Your task to perform on an android device: Search for vegetarian restaurants on Maps Image 0: 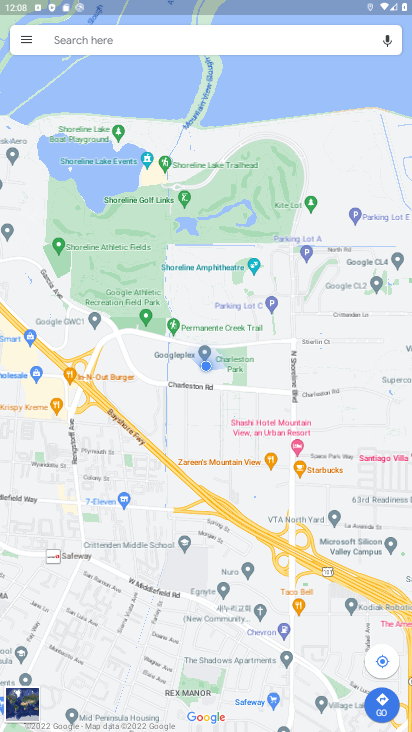
Step 0: click (295, 45)
Your task to perform on an android device: Search for vegetarian restaurants on Maps Image 1: 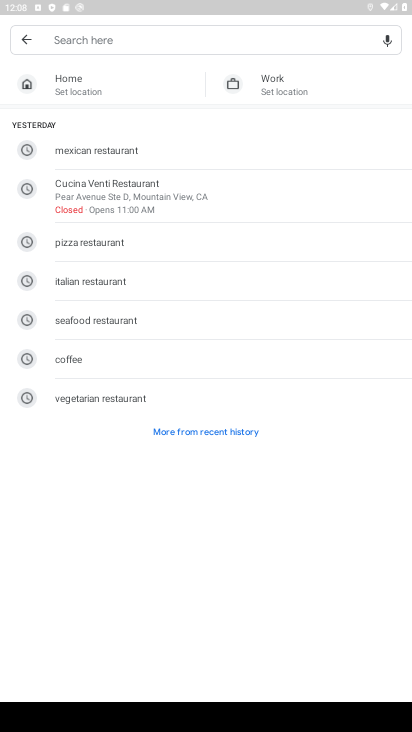
Step 1: click (101, 403)
Your task to perform on an android device: Search for vegetarian restaurants on Maps Image 2: 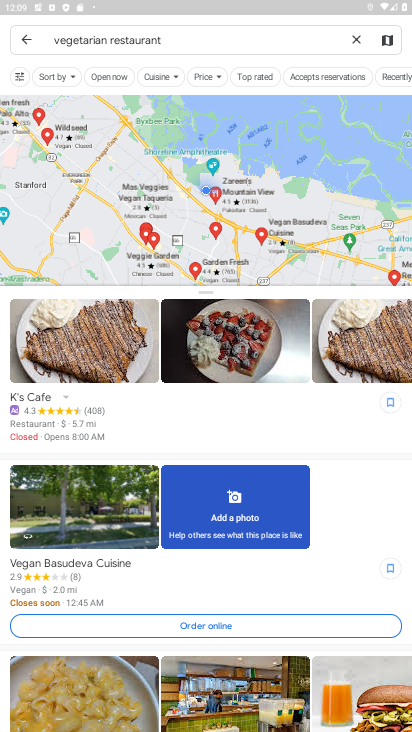
Step 2: task complete